Your task to perform on an android device: Go to network settings Image 0: 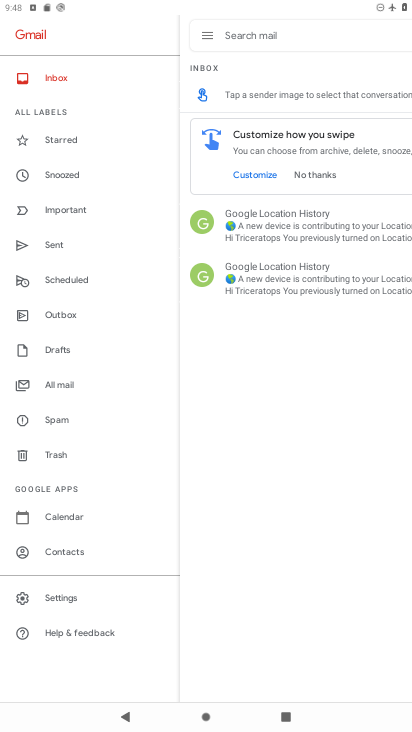
Step 0: press home button
Your task to perform on an android device: Go to network settings Image 1: 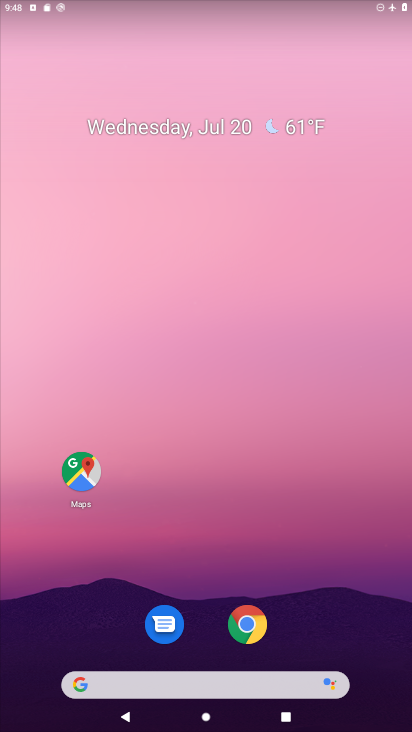
Step 1: drag from (192, 594) to (201, 260)
Your task to perform on an android device: Go to network settings Image 2: 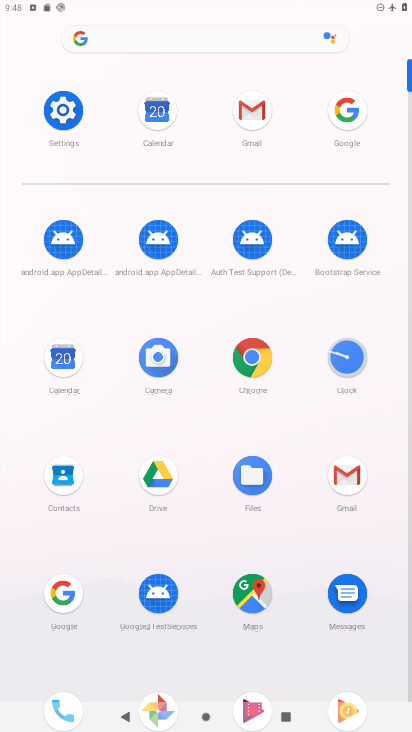
Step 2: click (53, 119)
Your task to perform on an android device: Go to network settings Image 3: 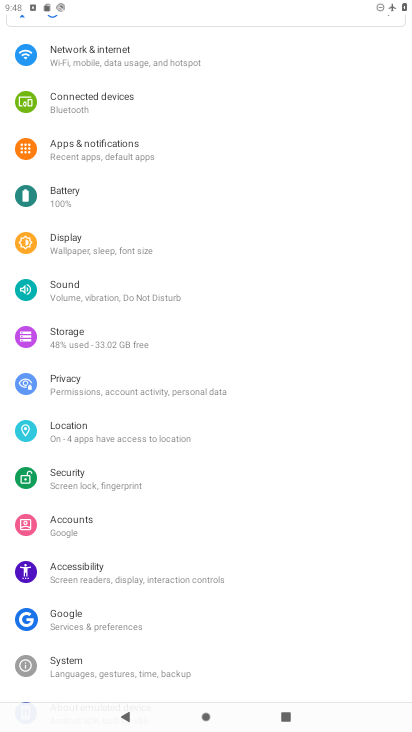
Step 3: click (166, 68)
Your task to perform on an android device: Go to network settings Image 4: 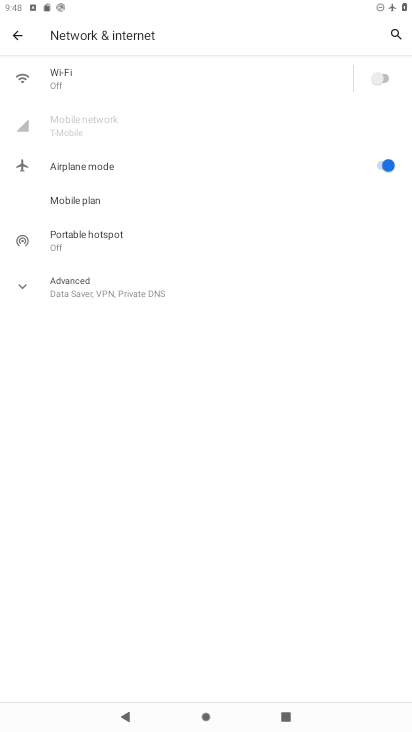
Step 4: task complete